Your task to perform on an android device: toggle improve location accuracy Image 0: 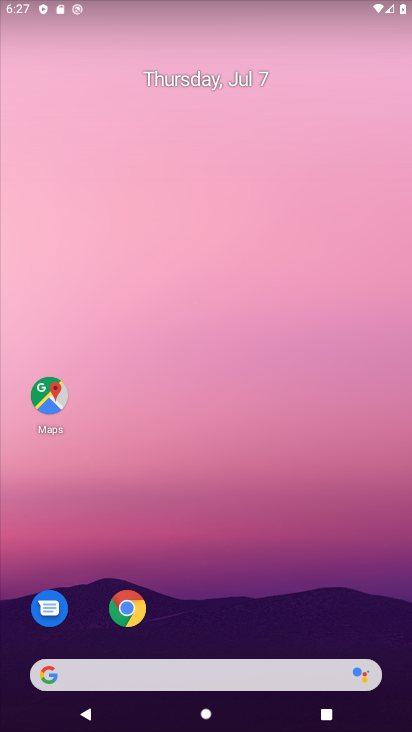
Step 0: drag from (180, 600) to (214, 0)
Your task to perform on an android device: toggle improve location accuracy Image 1: 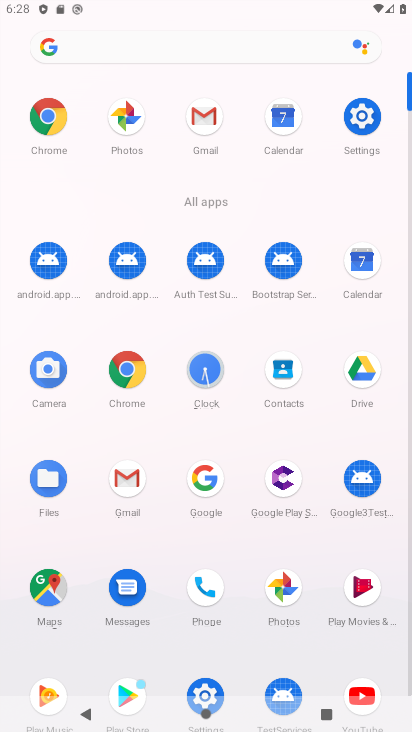
Step 1: click (359, 119)
Your task to perform on an android device: toggle improve location accuracy Image 2: 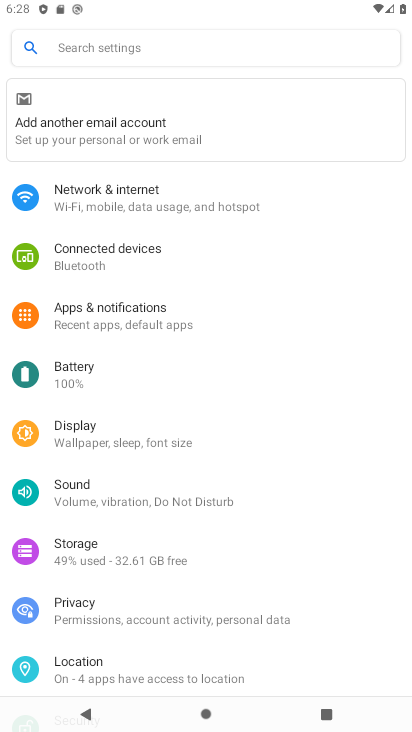
Step 2: click (94, 659)
Your task to perform on an android device: toggle improve location accuracy Image 3: 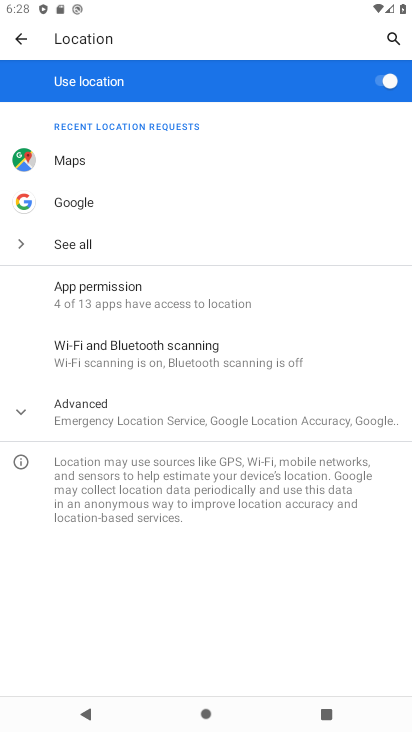
Step 3: click (125, 416)
Your task to perform on an android device: toggle improve location accuracy Image 4: 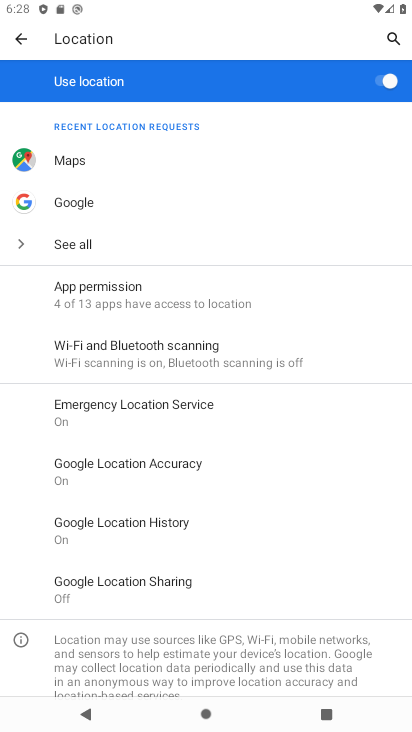
Step 4: click (129, 469)
Your task to perform on an android device: toggle improve location accuracy Image 5: 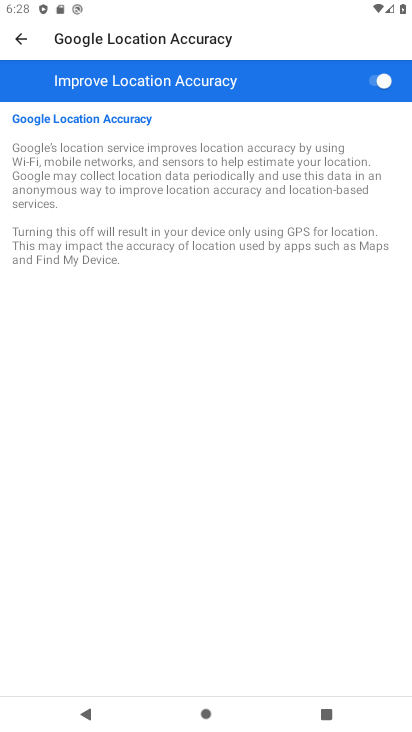
Step 5: click (379, 81)
Your task to perform on an android device: toggle improve location accuracy Image 6: 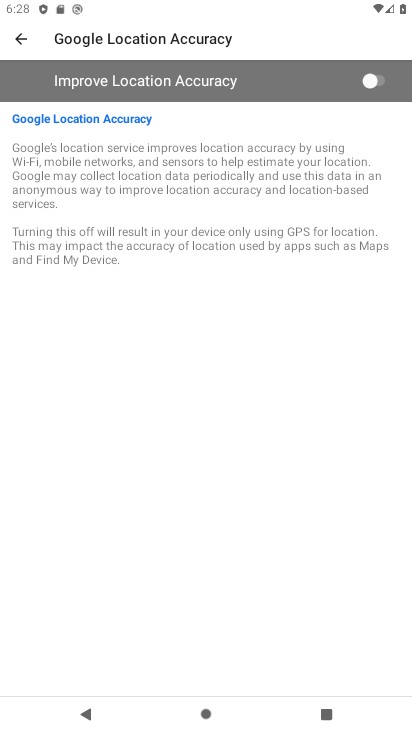
Step 6: task complete